Your task to perform on an android device: Go to location settings Image 0: 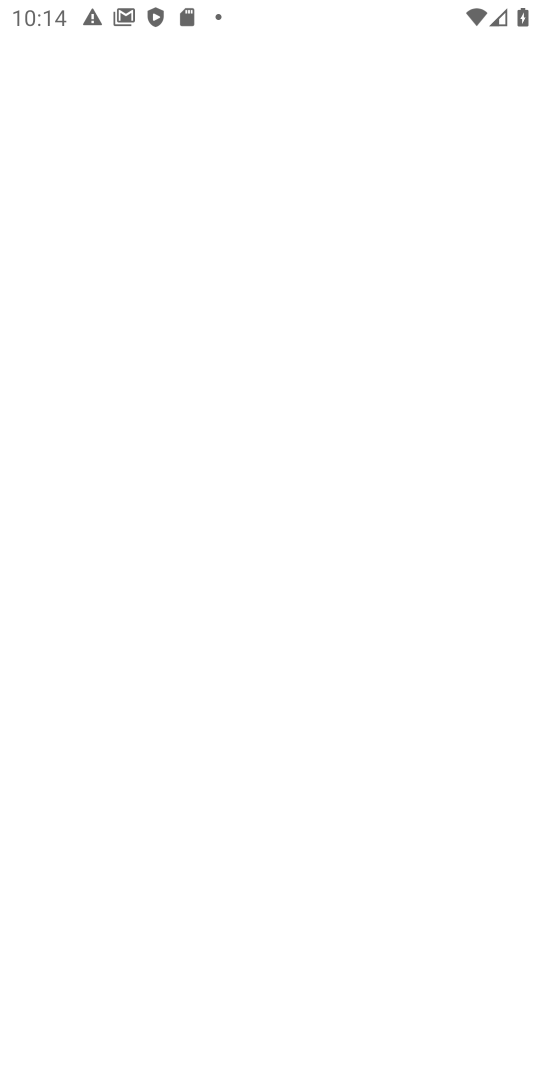
Step 0: press home button
Your task to perform on an android device: Go to location settings Image 1: 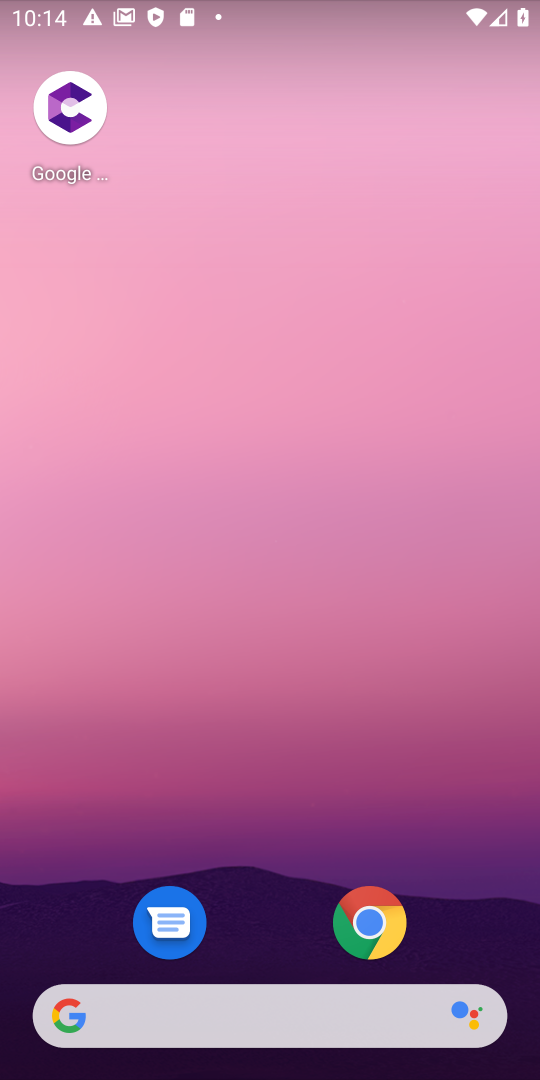
Step 1: drag from (290, 895) to (367, 18)
Your task to perform on an android device: Go to location settings Image 2: 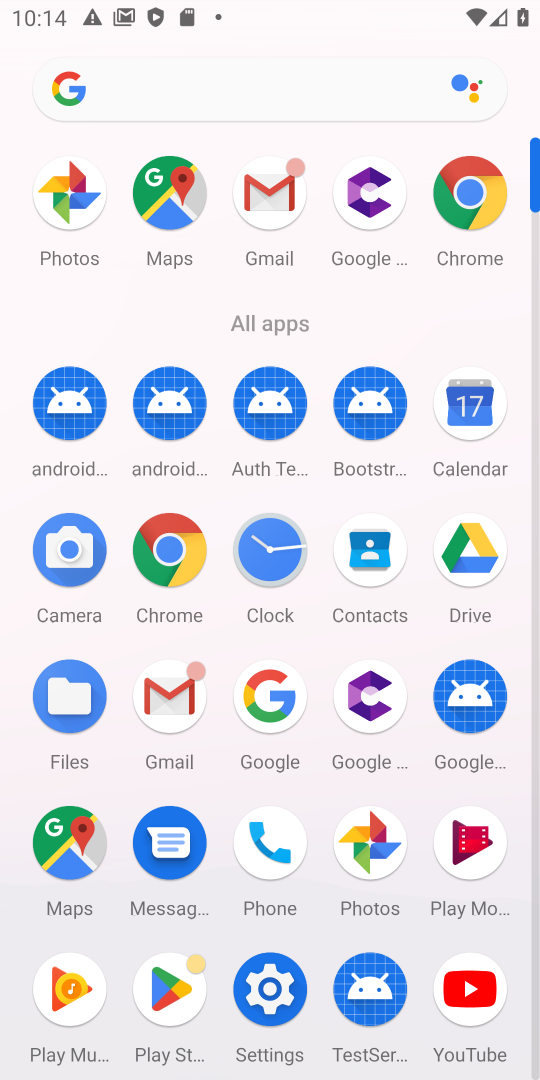
Step 2: click (254, 979)
Your task to perform on an android device: Go to location settings Image 3: 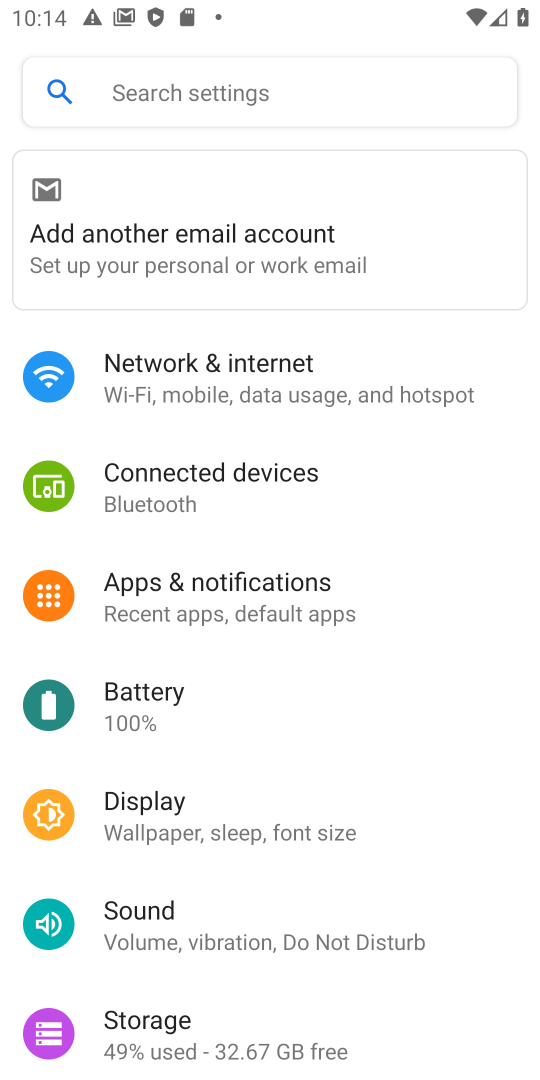
Step 3: drag from (309, 943) to (325, 347)
Your task to perform on an android device: Go to location settings Image 4: 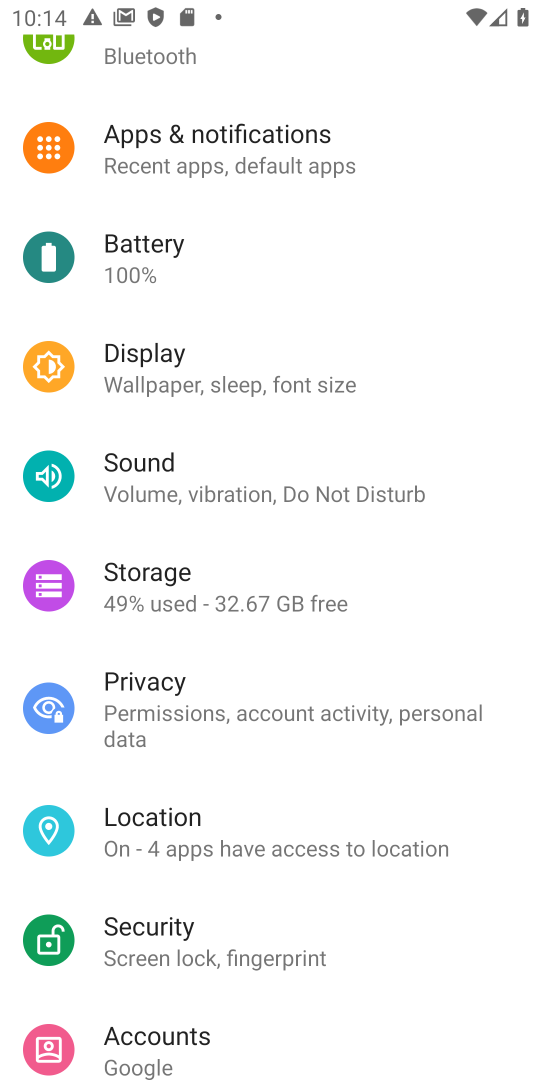
Step 4: click (243, 827)
Your task to perform on an android device: Go to location settings Image 5: 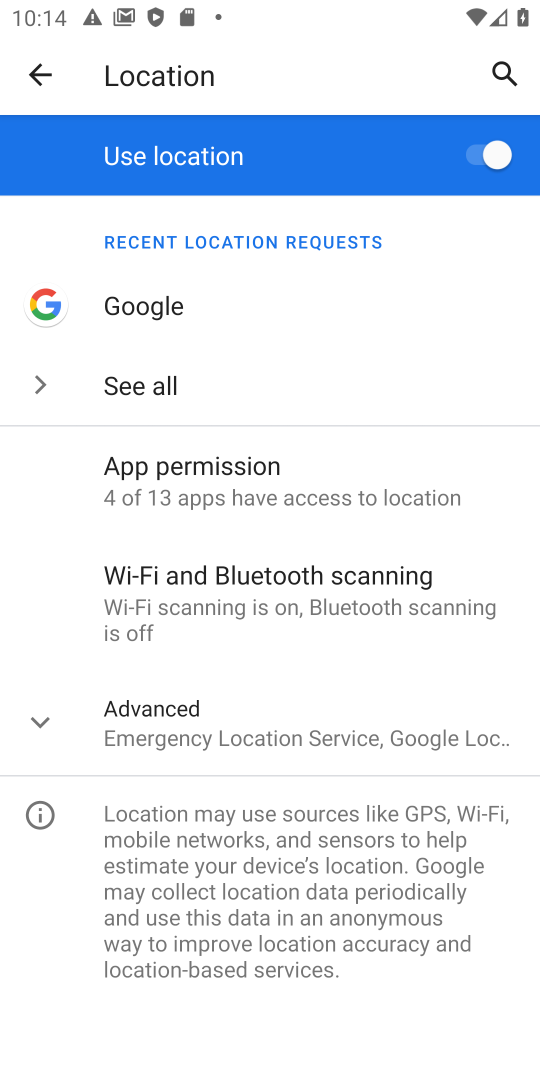
Step 5: task complete